Your task to perform on an android device: open app "Google Photos" Image 0: 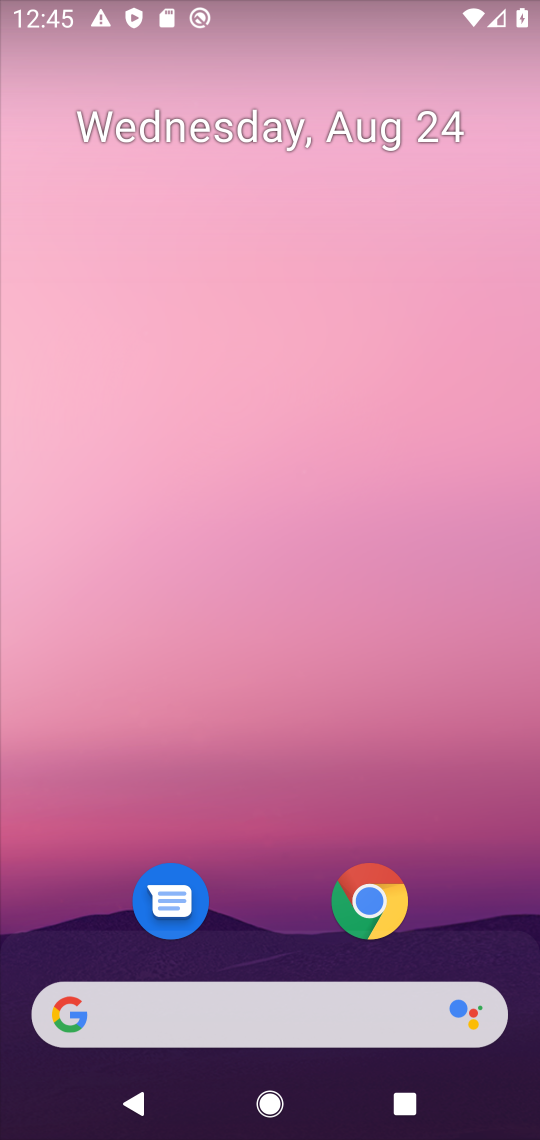
Step 0: drag from (228, 920) to (335, 223)
Your task to perform on an android device: open app "Google Photos" Image 1: 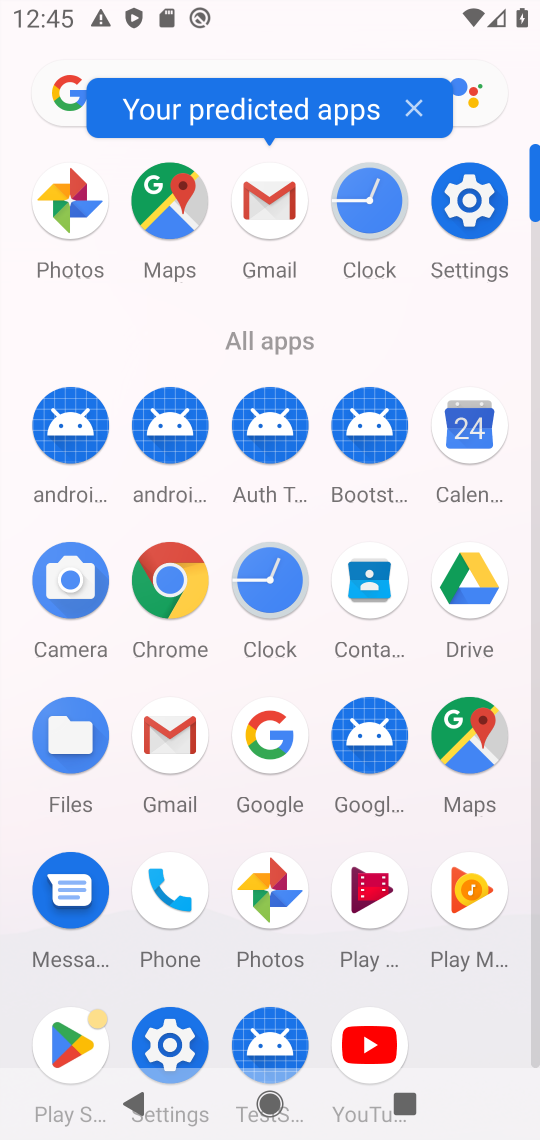
Step 1: click (69, 1026)
Your task to perform on an android device: open app "Google Photos" Image 2: 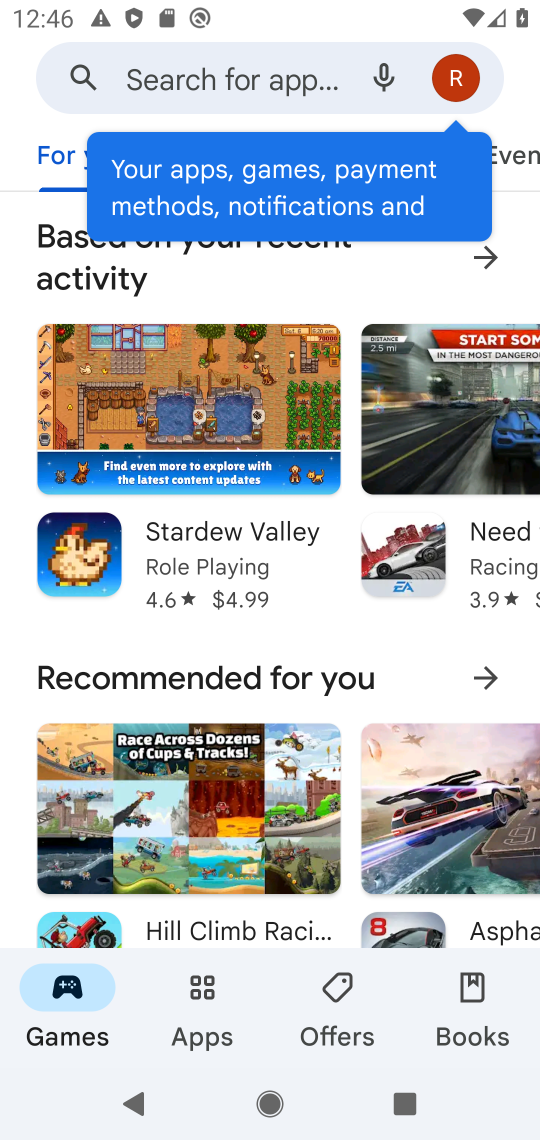
Step 2: click (200, 61)
Your task to perform on an android device: open app "Google Photos" Image 3: 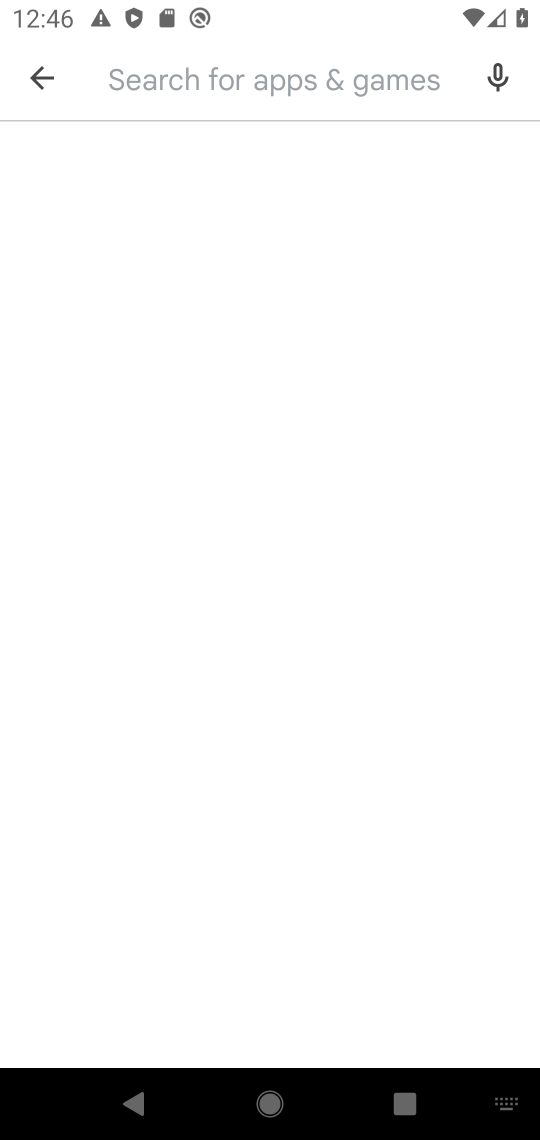
Step 3: click (210, 79)
Your task to perform on an android device: open app "Google Photos" Image 4: 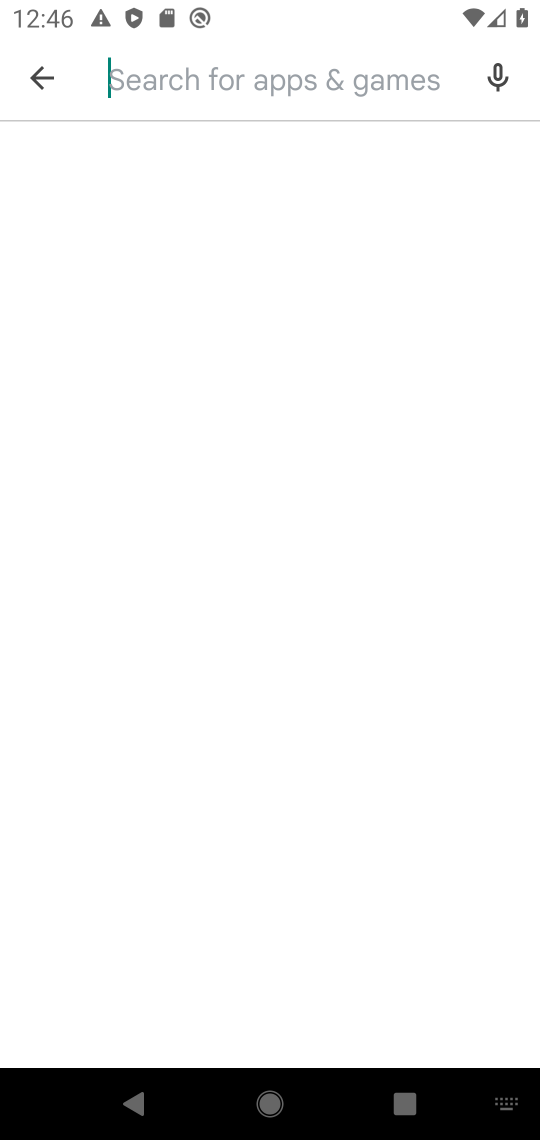
Step 4: type "Google Photos"
Your task to perform on an android device: open app "Google Photos" Image 5: 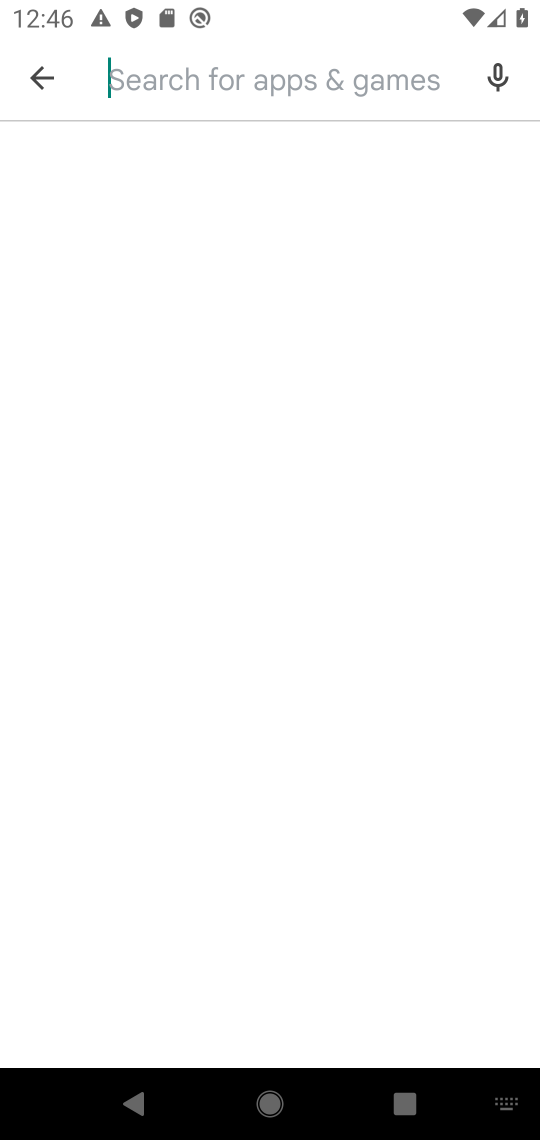
Step 5: click (224, 672)
Your task to perform on an android device: open app "Google Photos" Image 6: 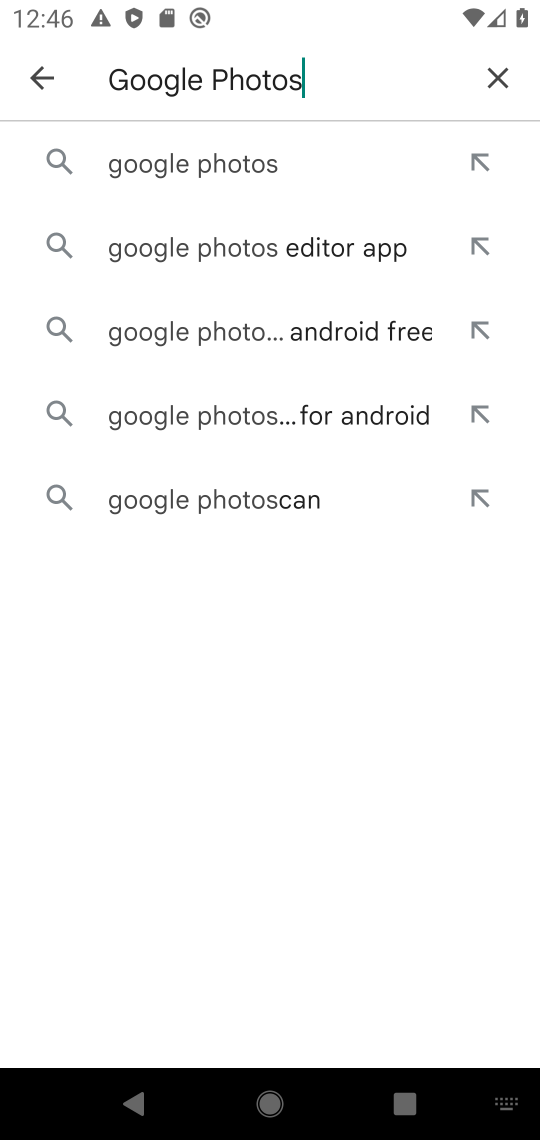
Step 6: click (203, 142)
Your task to perform on an android device: open app "Google Photos" Image 7: 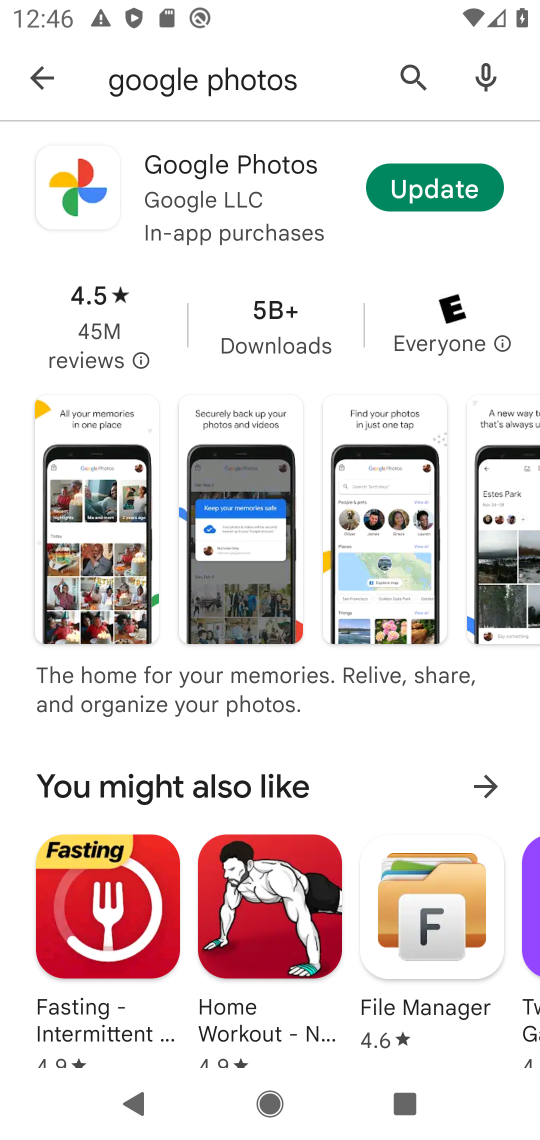
Step 7: click (214, 167)
Your task to perform on an android device: open app "Google Photos" Image 8: 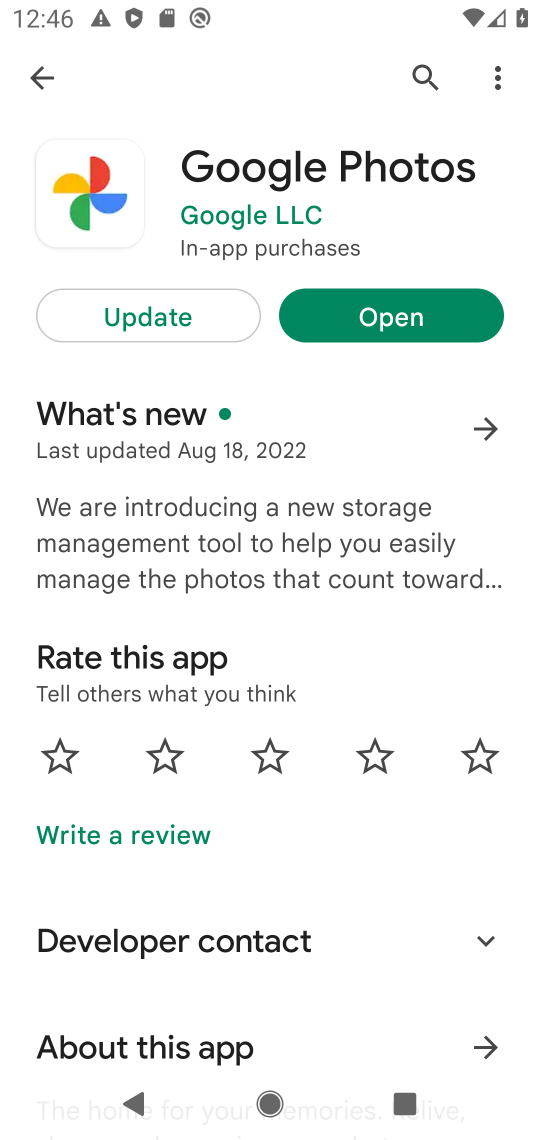
Step 8: click (371, 334)
Your task to perform on an android device: open app "Google Photos" Image 9: 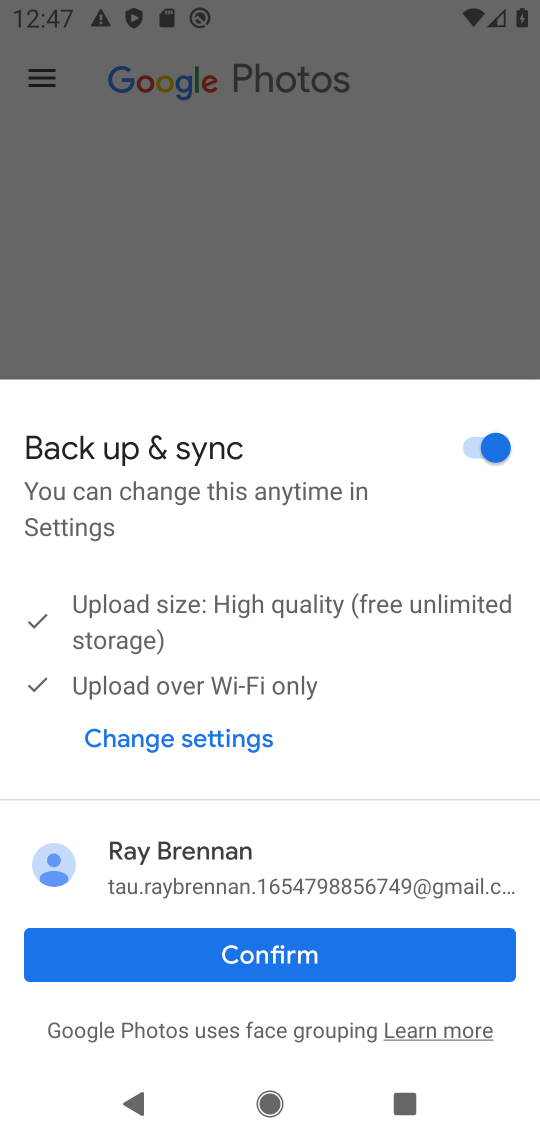
Step 9: task complete